Your task to perform on an android device: Search for seafood restaurants on Google Maps Image 0: 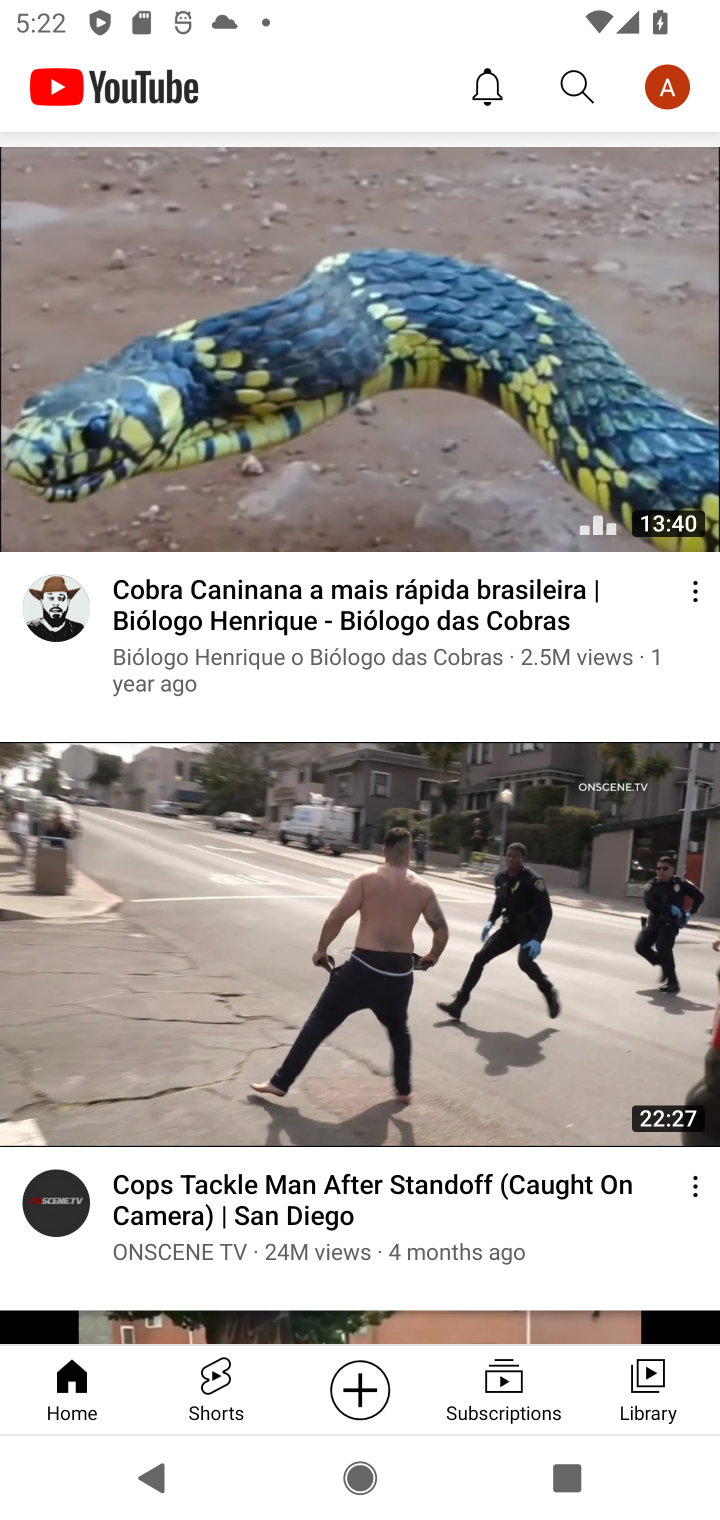
Step 0: press home button
Your task to perform on an android device: Search for seafood restaurants on Google Maps Image 1: 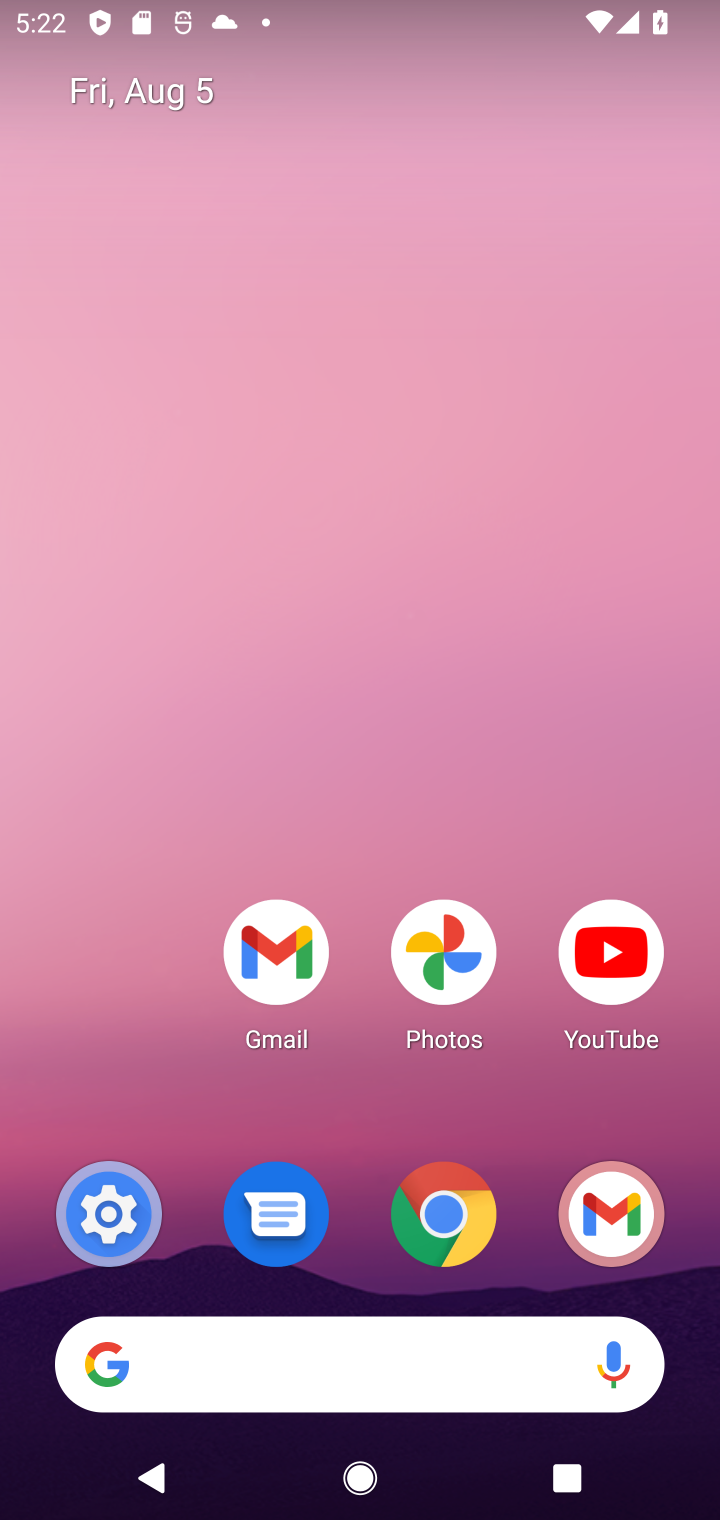
Step 1: drag from (120, 1048) to (406, 9)
Your task to perform on an android device: Search for seafood restaurants on Google Maps Image 2: 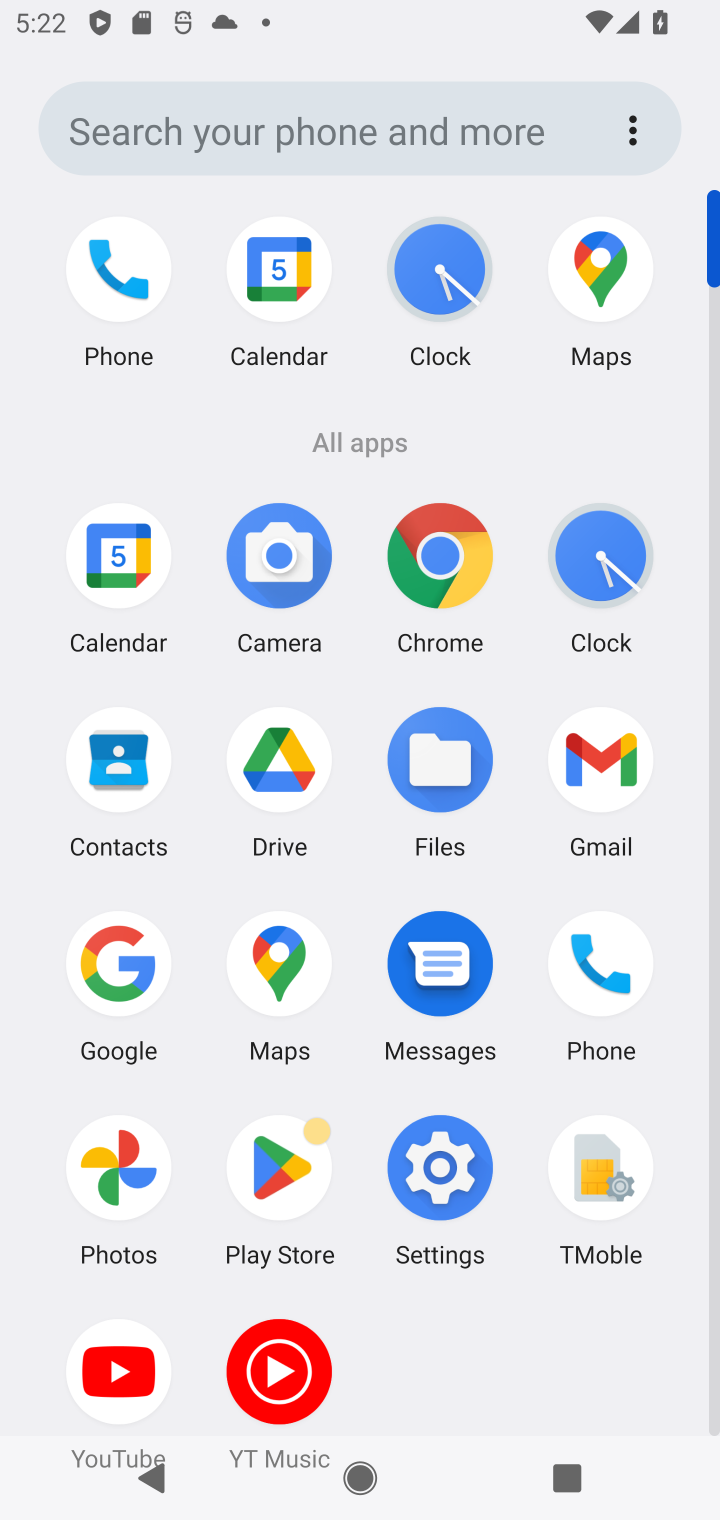
Step 2: click (272, 957)
Your task to perform on an android device: Search for seafood restaurants on Google Maps Image 3: 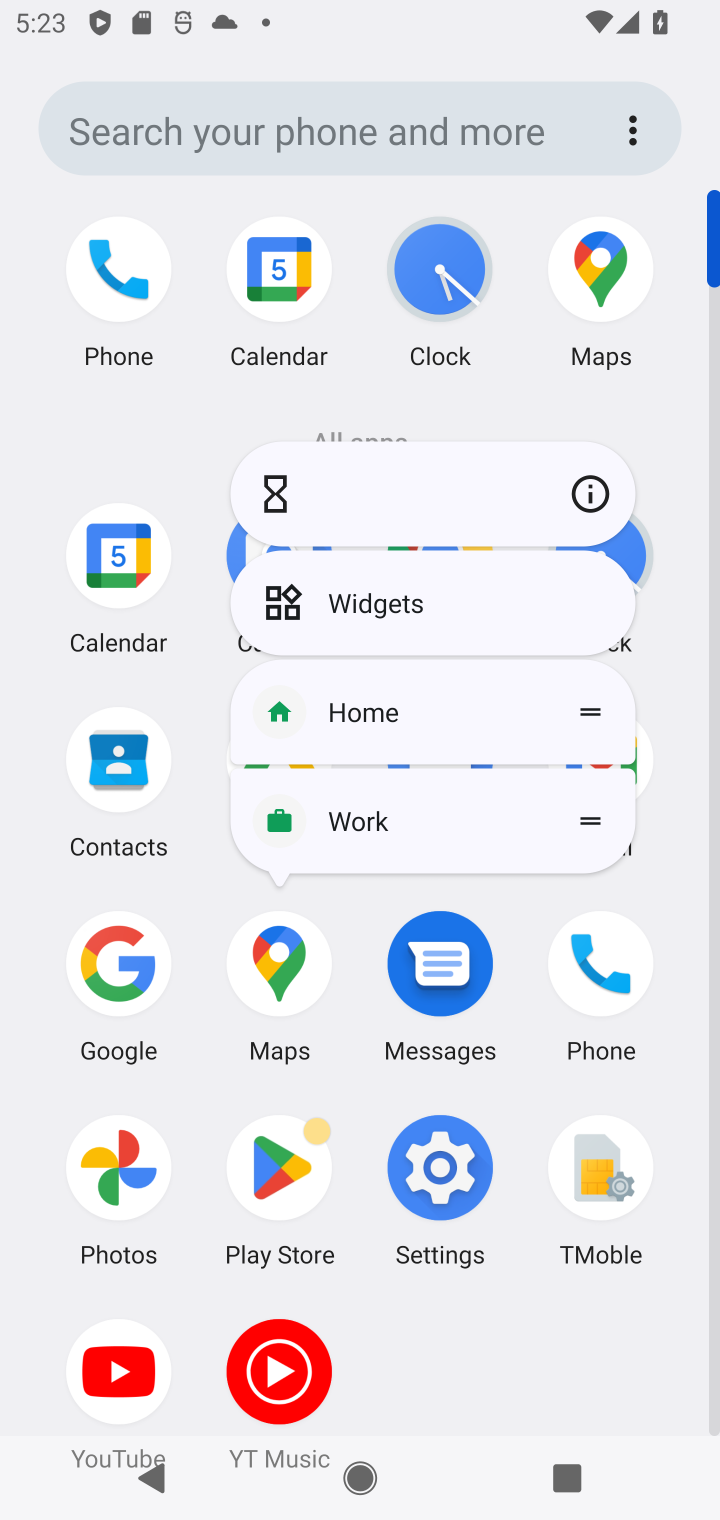
Step 3: click (269, 942)
Your task to perform on an android device: Search for seafood restaurants on Google Maps Image 4: 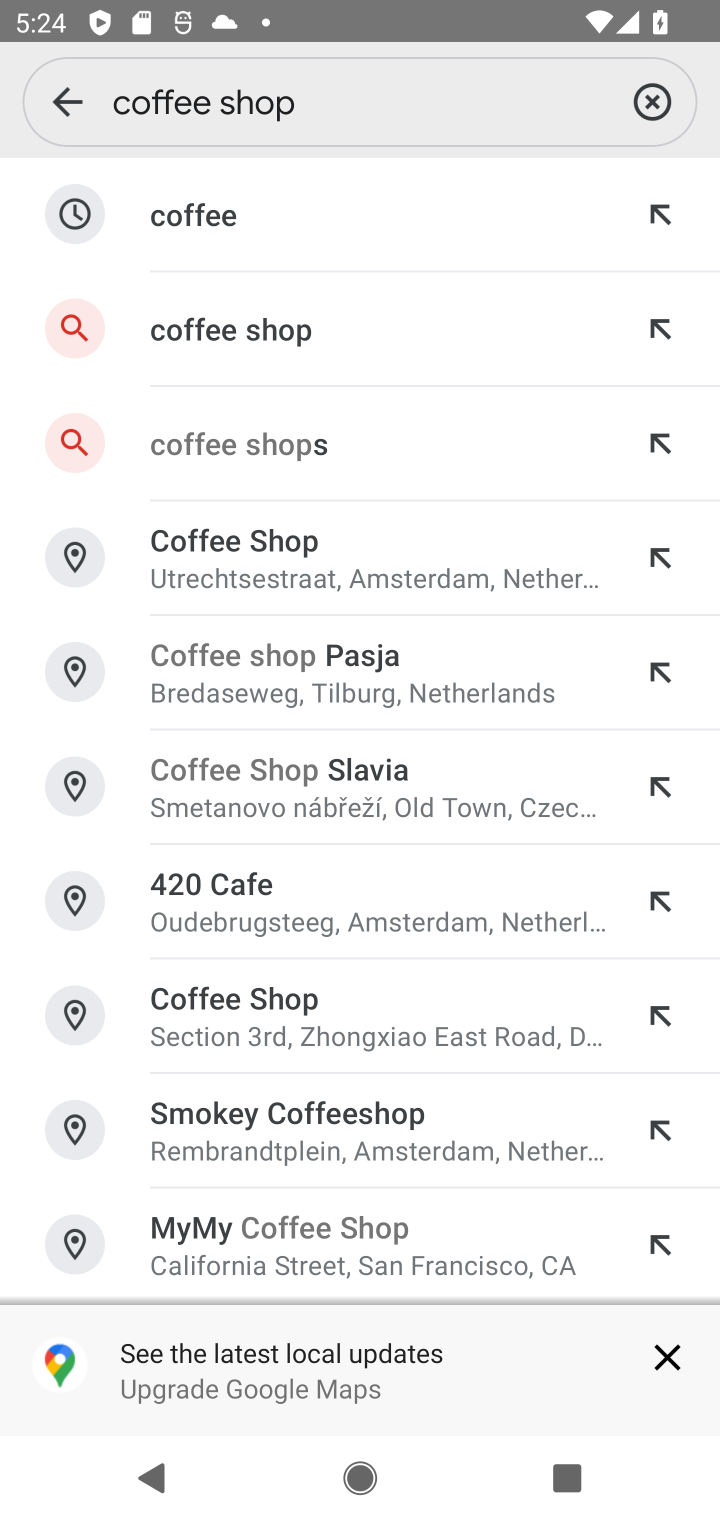
Step 4: click (83, 100)
Your task to perform on an android device: Search for seafood restaurants on Google Maps Image 5: 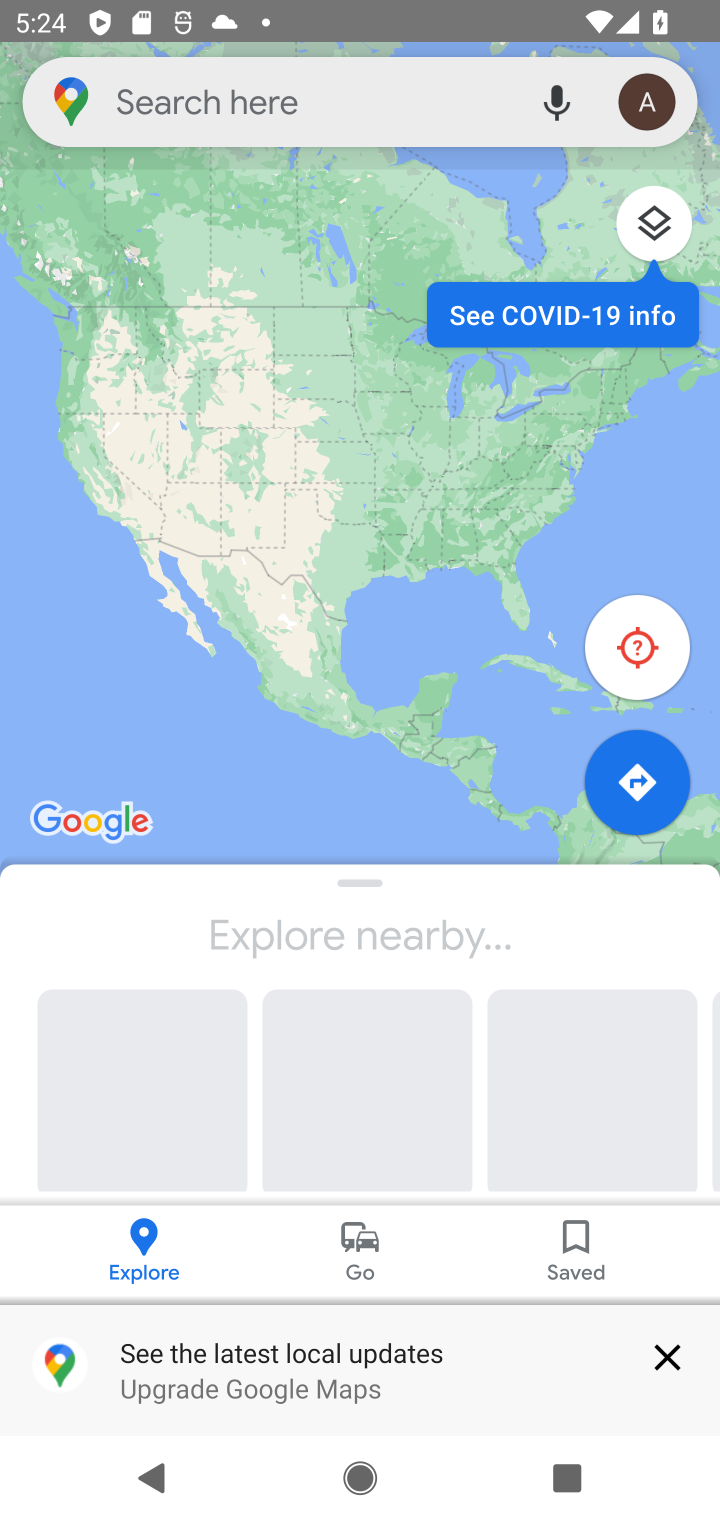
Step 5: click (247, 97)
Your task to perform on an android device: Search for seafood restaurants on Google Maps Image 6: 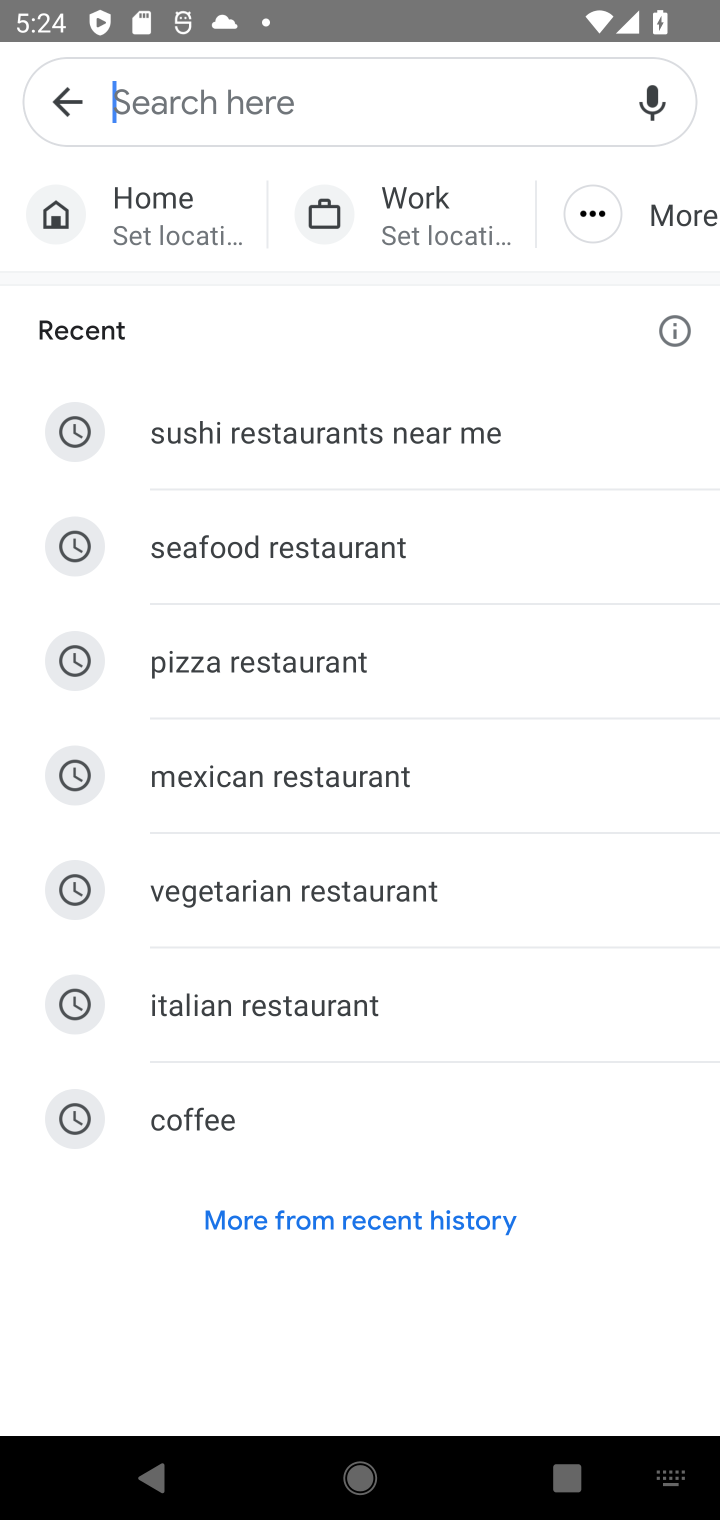
Step 6: click (305, 533)
Your task to perform on an android device: Search for seafood restaurants on Google Maps Image 7: 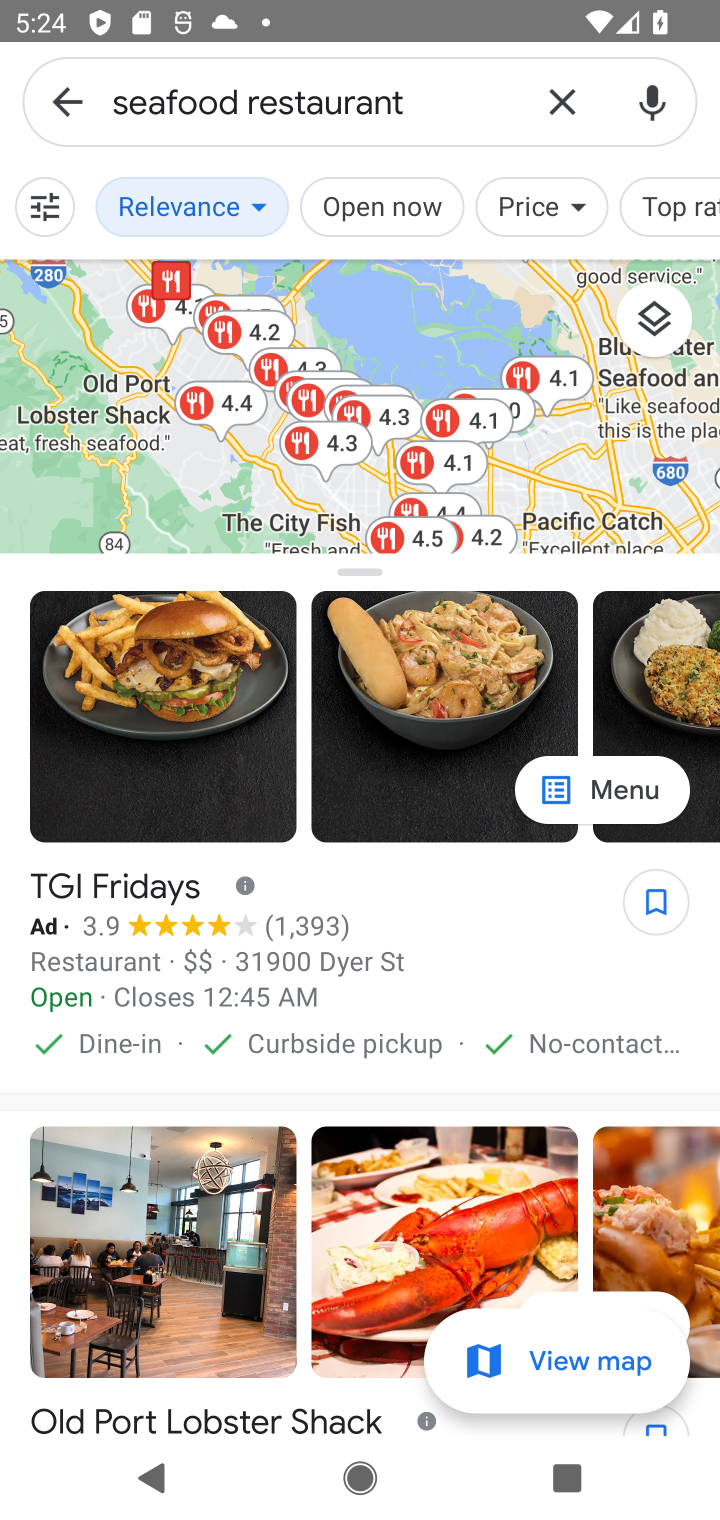
Step 7: task complete